Your task to perform on an android device: add a contact Image 0: 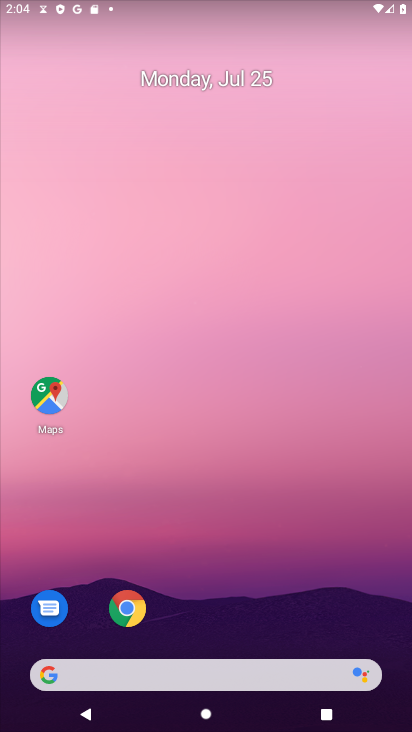
Step 0: drag from (153, 678) to (186, 133)
Your task to perform on an android device: add a contact Image 1: 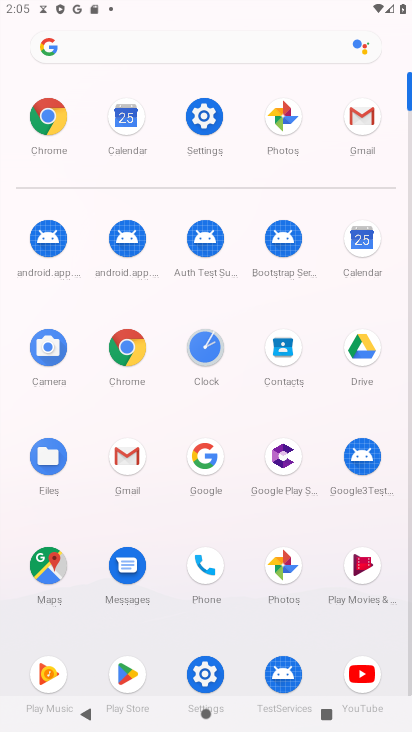
Step 1: click (282, 348)
Your task to perform on an android device: add a contact Image 2: 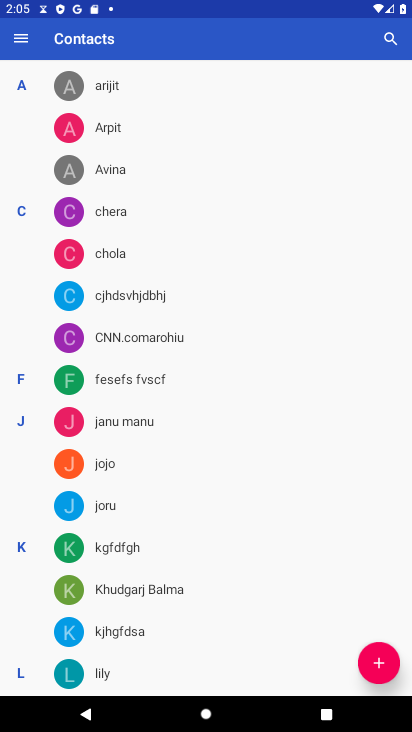
Step 2: click (382, 663)
Your task to perform on an android device: add a contact Image 3: 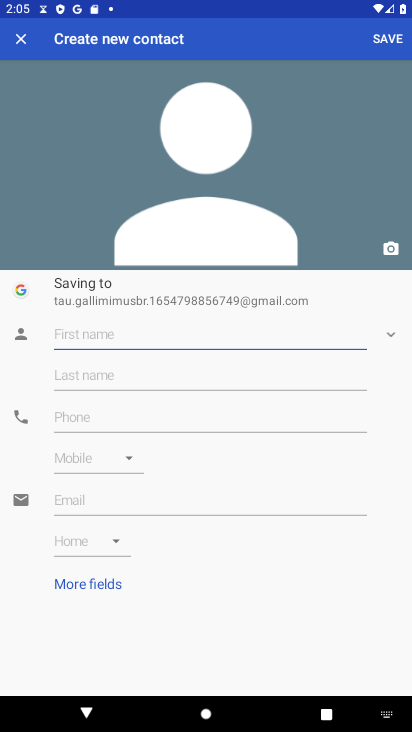
Step 3: type "Brett"
Your task to perform on an android device: add a contact Image 4: 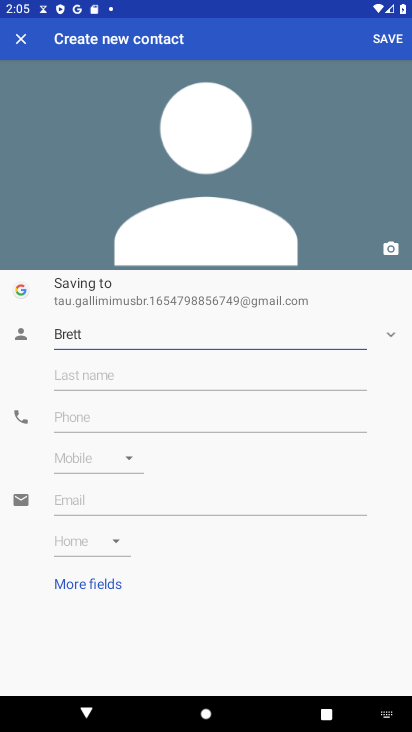
Step 4: click (284, 372)
Your task to perform on an android device: add a contact Image 5: 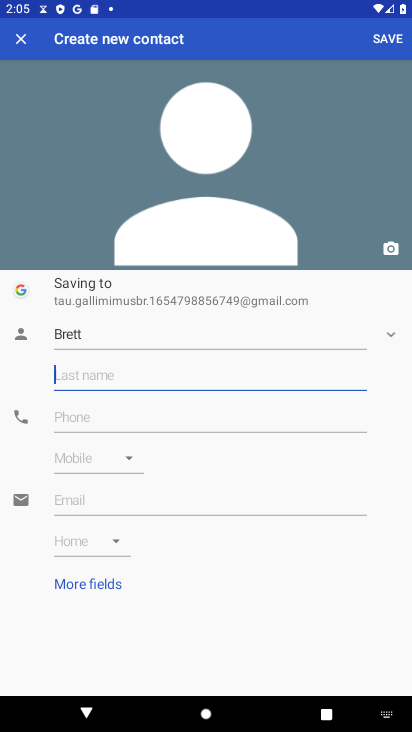
Step 5: type "Lee"
Your task to perform on an android device: add a contact Image 6: 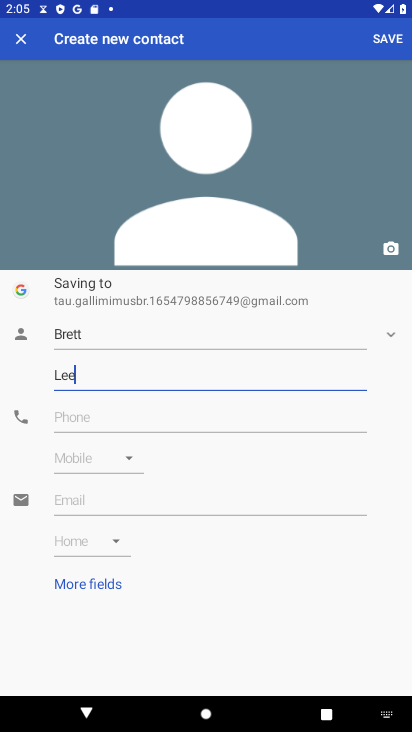
Step 6: type ""
Your task to perform on an android device: add a contact Image 7: 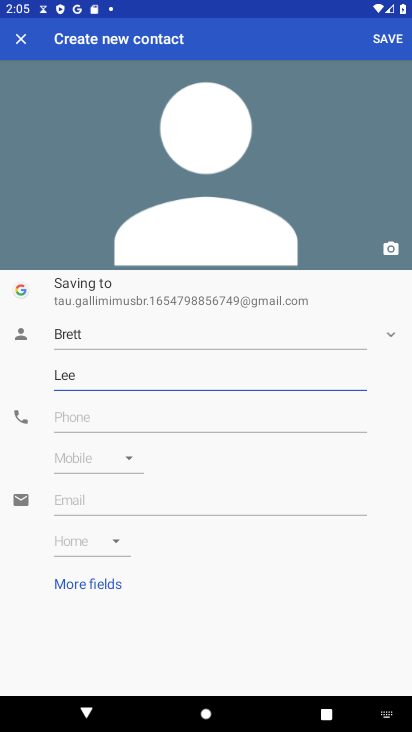
Step 7: click (184, 422)
Your task to perform on an android device: add a contact Image 8: 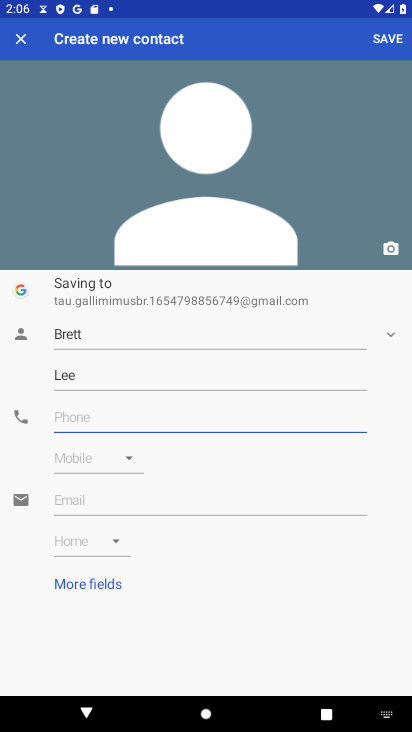
Step 8: type "0987654321"
Your task to perform on an android device: add a contact Image 9: 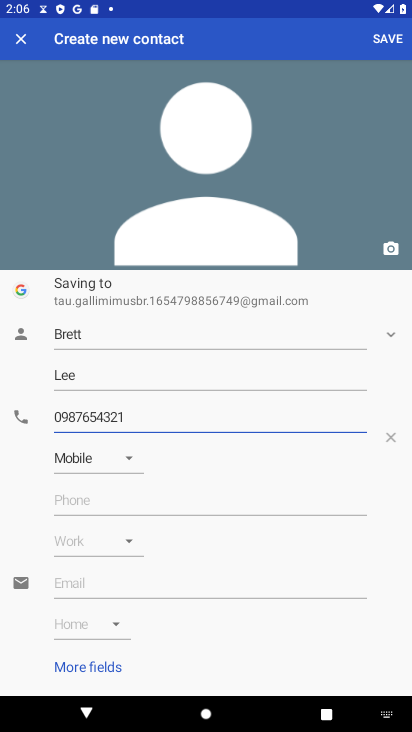
Step 9: click (395, 35)
Your task to perform on an android device: add a contact Image 10: 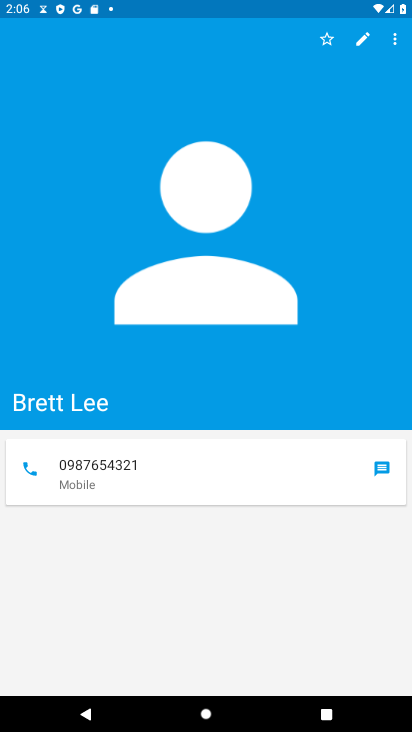
Step 10: task complete